Your task to perform on an android device: Open the calendar app, open the side menu, and click the "Day" option Image 0: 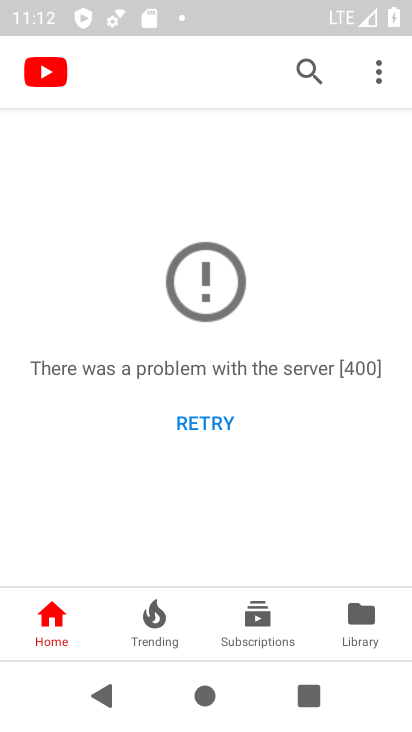
Step 0: press home button
Your task to perform on an android device: Open the calendar app, open the side menu, and click the "Day" option Image 1: 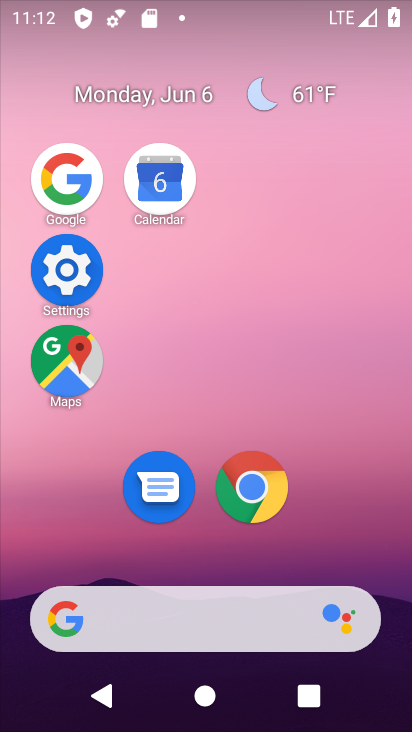
Step 1: click (190, 170)
Your task to perform on an android device: Open the calendar app, open the side menu, and click the "Day" option Image 2: 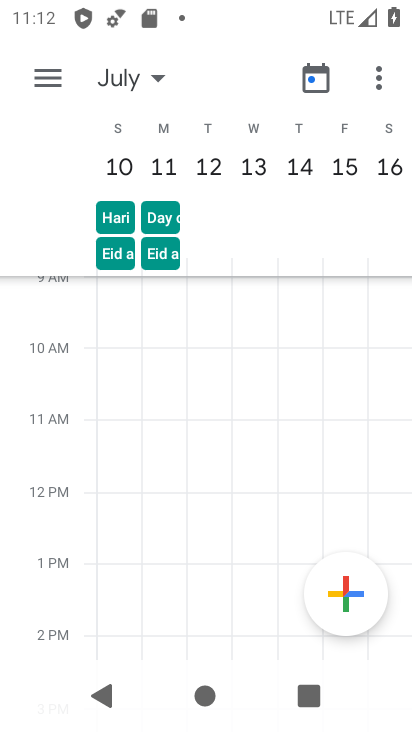
Step 2: click (59, 79)
Your task to perform on an android device: Open the calendar app, open the side menu, and click the "Day" option Image 3: 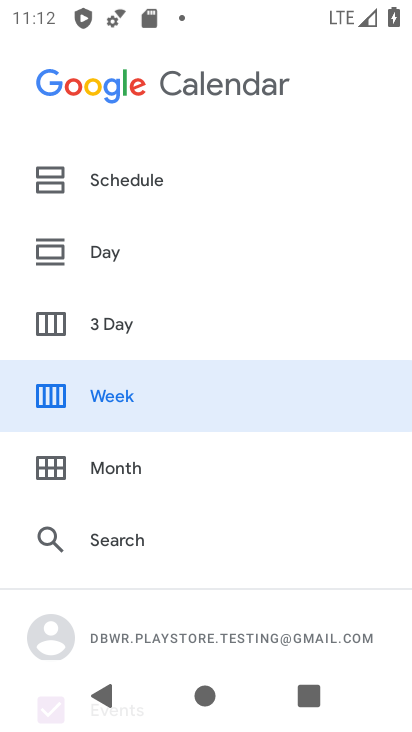
Step 3: click (130, 248)
Your task to perform on an android device: Open the calendar app, open the side menu, and click the "Day" option Image 4: 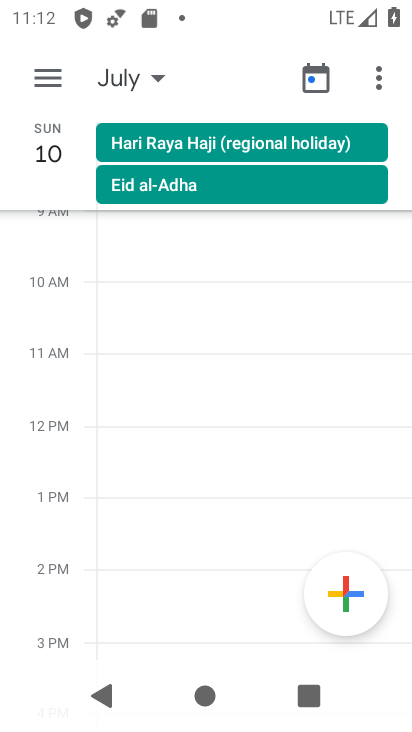
Step 4: task complete